Your task to perform on an android device: Open the phone app and click the voicemail tab. Image 0: 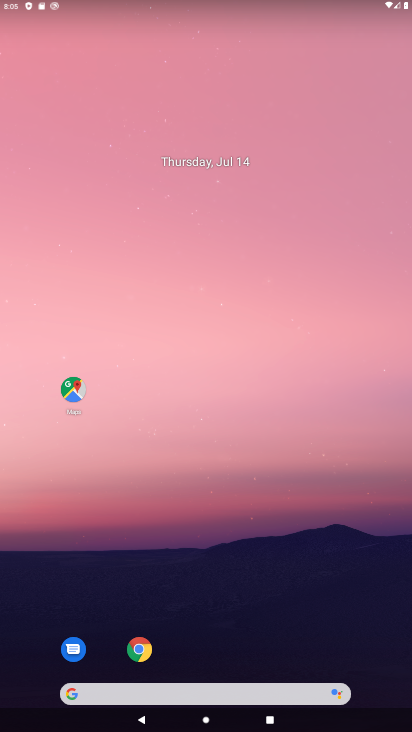
Step 0: drag from (204, 649) to (208, 157)
Your task to perform on an android device: Open the phone app and click the voicemail tab. Image 1: 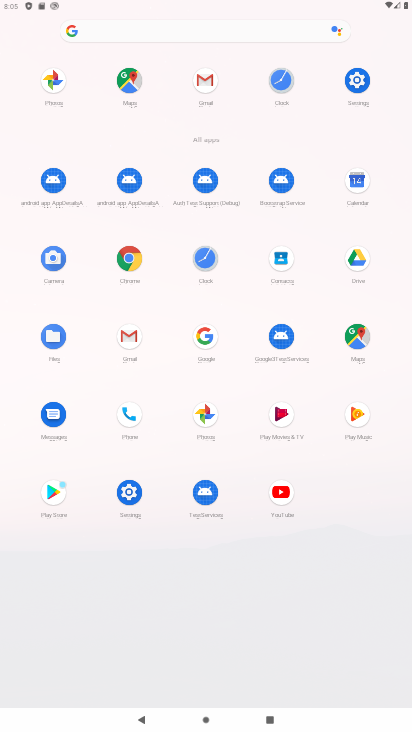
Step 1: click (139, 424)
Your task to perform on an android device: Open the phone app and click the voicemail tab. Image 2: 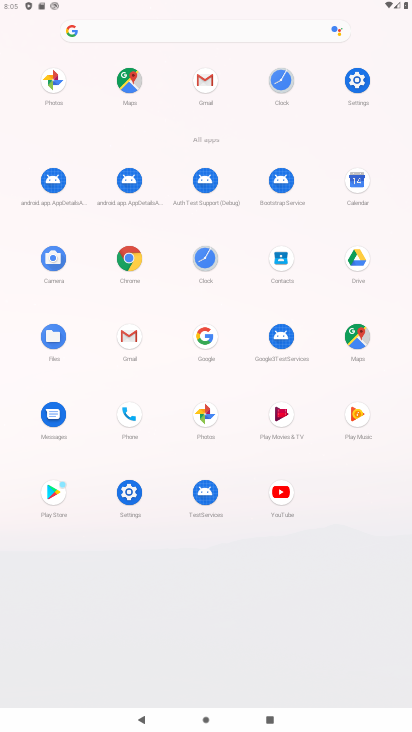
Step 2: click (123, 424)
Your task to perform on an android device: Open the phone app and click the voicemail tab. Image 3: 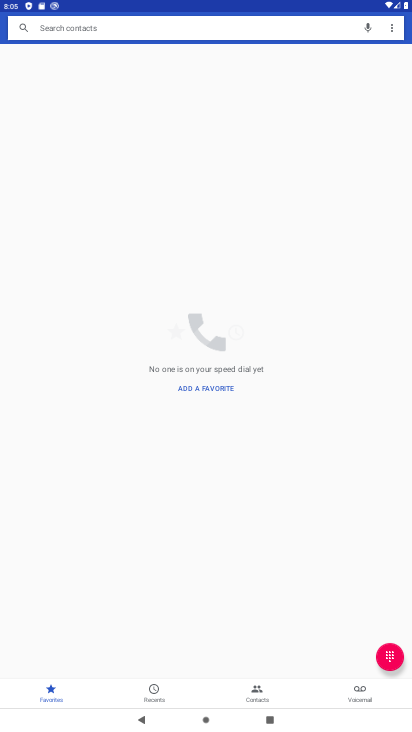
Step 3: click (353, 690)
Your task to perform on an android device: Open the phone app and click the voicemail tab. Image 4: 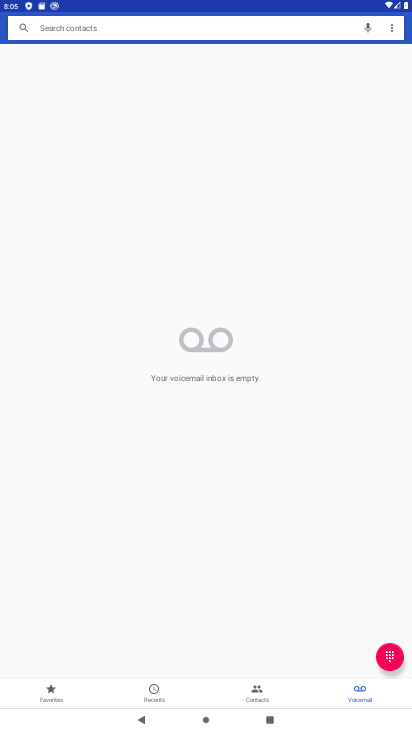
Step 4: task complete